Your task to perform on an android device: Show me productivity apps on the Play Store Image 0: 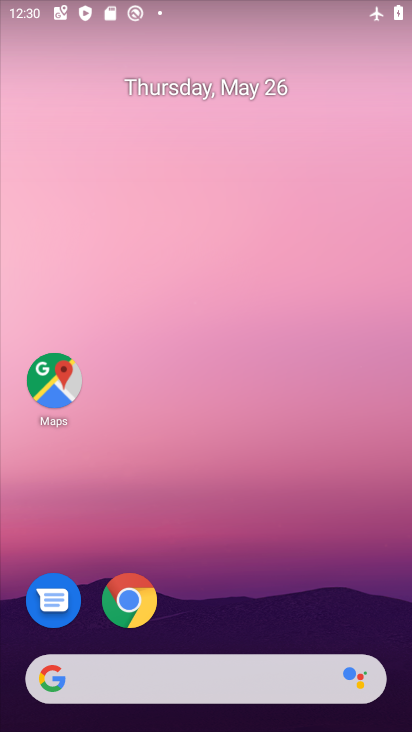
Step 0: drag from (339, 523) to (333, 199)
Your task to perform on an android device: Show me productivity apps on the Play Store Image 1: 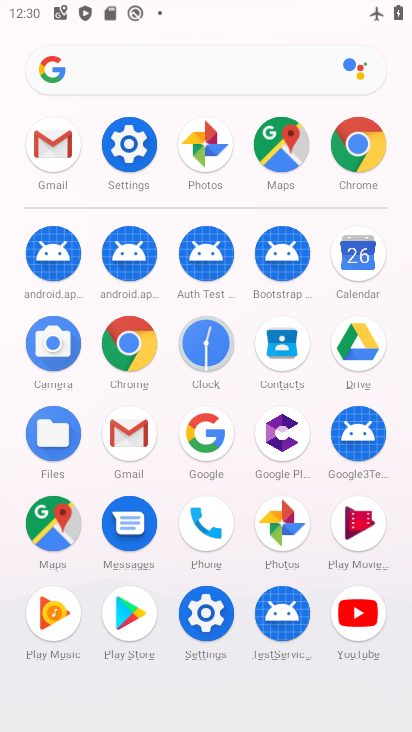
Step 1: click (138, 607)
Your task to perform on an android device: Show me productivity apps on the Play Store Image 2: 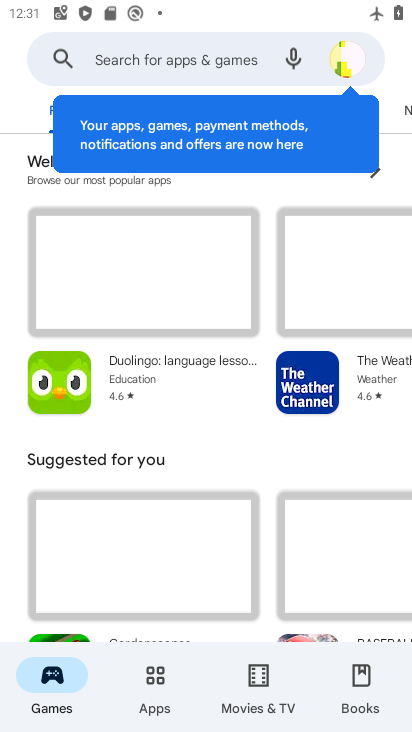
Step 2: click (146, 679)
Your task to perform on an android device: Show me productivity apps on the Play Store Image 3: 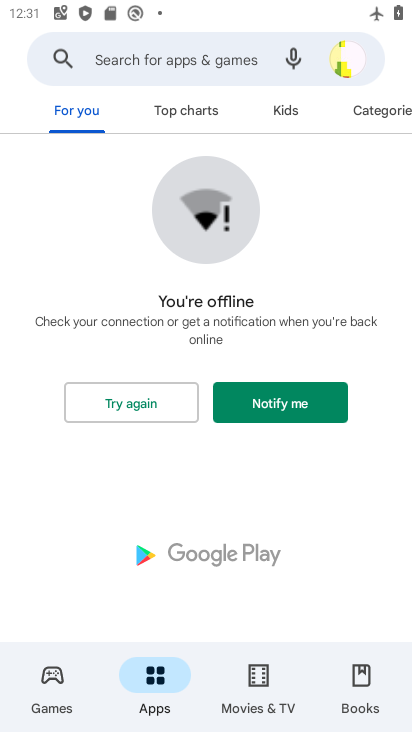
Step 3: task complete